Your task to perform on an android device: clear history in the chrome app Image 0: 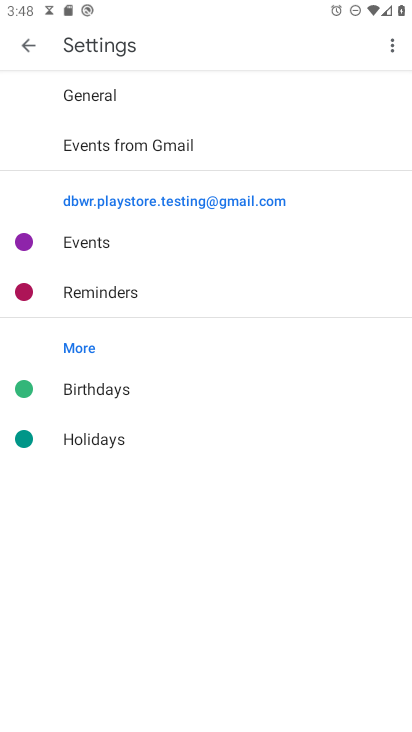
Step 0: press home button
Your task to perform on an android device: clear history in the chrome app Image 1: 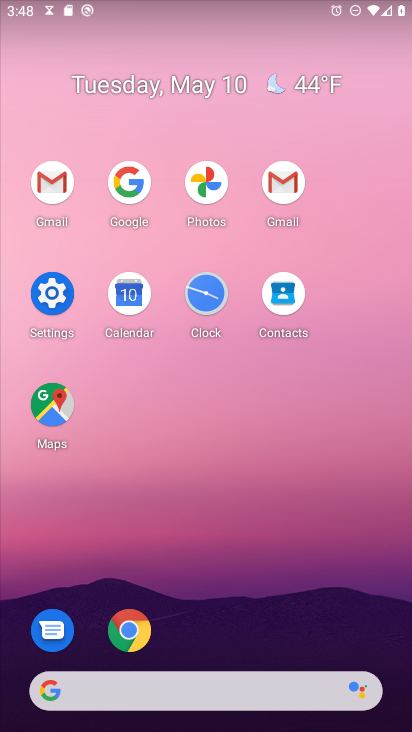
Step 1: click (142, 652)
Your task to perform on an android device: clear history in the chrome app Image 2: 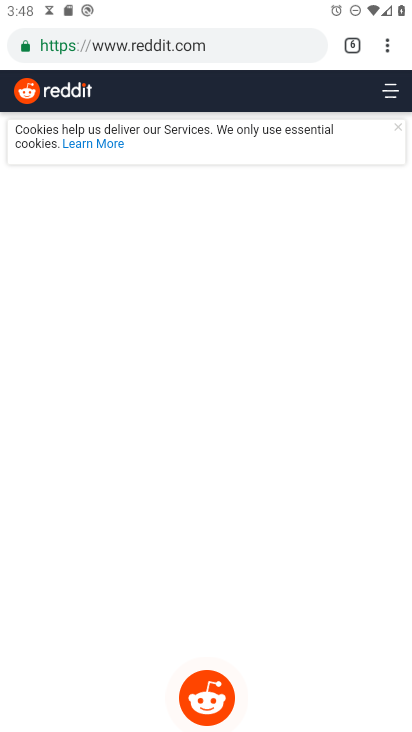
Step 2: click (391, 47)
Your task to perform on an android device: clear history in the chrome app Image 3: 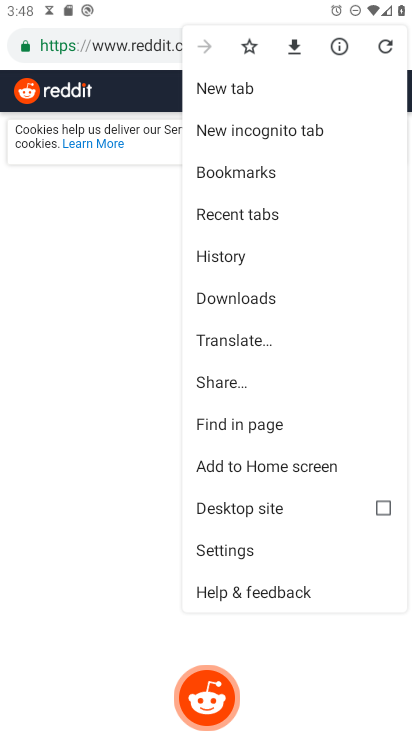
Step 3: click (242, 252)
Your task to perform on an android device: clear history in the chrome app Image 4: 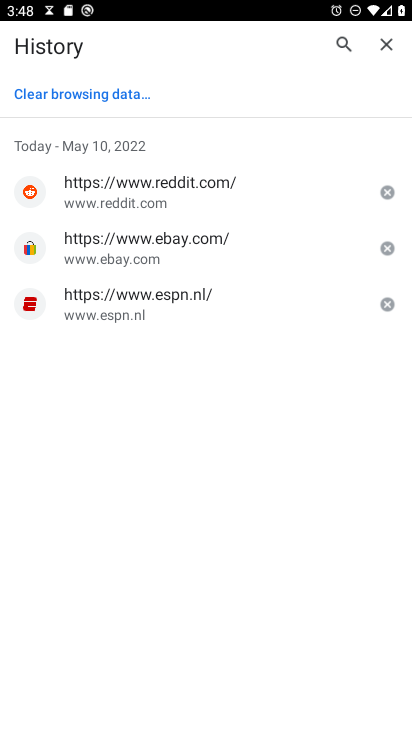
Step 4: click (95, 95)
Your task to perform on an android device: clear history in the chrome app Image 5: 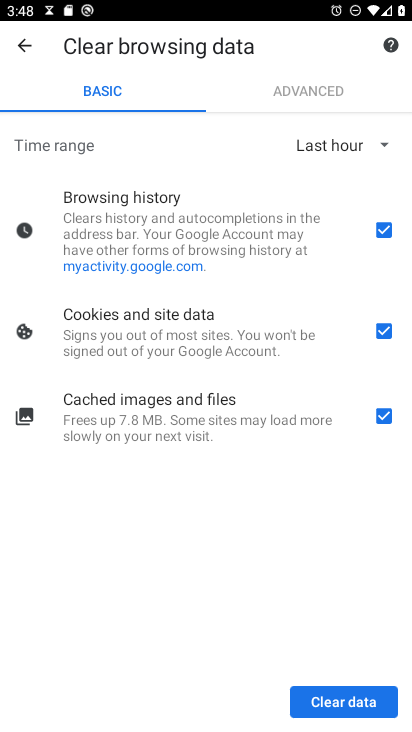
Step 5: click (347, 697)
Your task to perform on an android device: clear history in the chrome app Image 6: 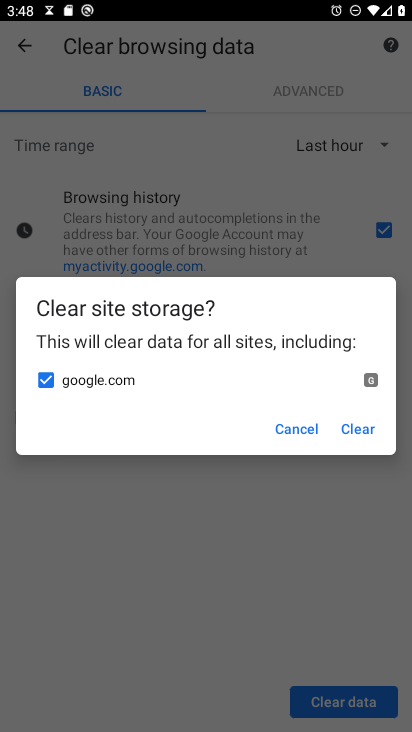
Step 6: click (361, 417)
Your task to perform on an android device: clear history in the chrome app Image 7: 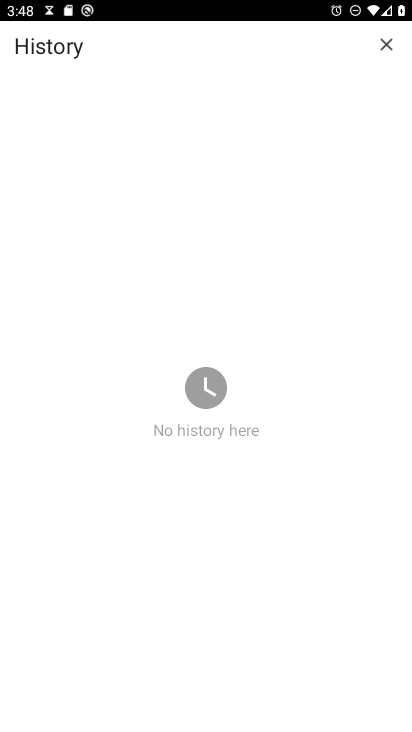
Step 7: task complete